Your task to perform on an android device: Go to location settings Image 0: 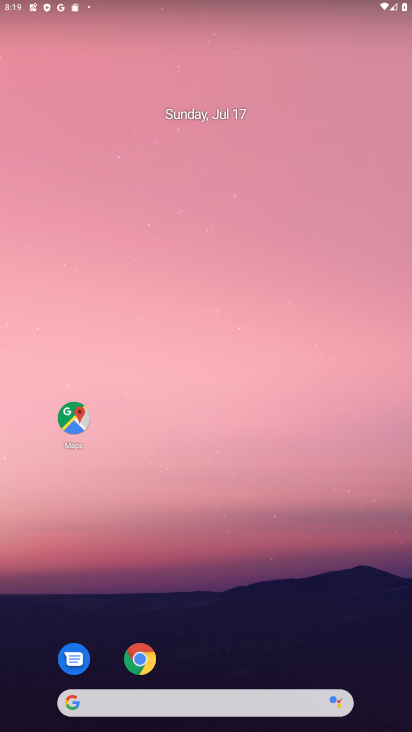
Step 0: drag from (232, 595) to (272, 0)
Your task to perform on an android device: Go to location settings Image 1: 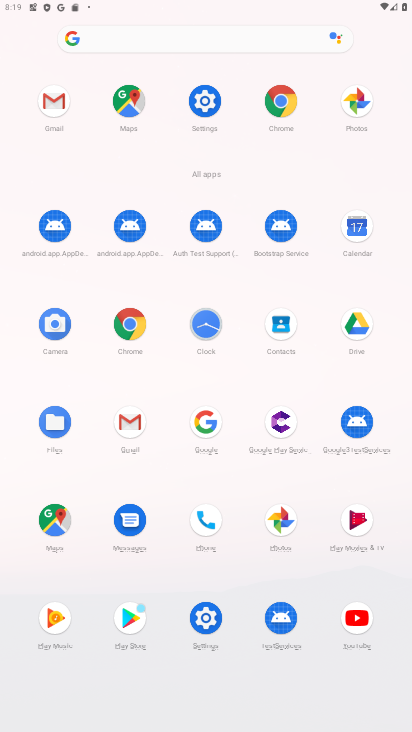
Step 1: click (203, 622)
Your task to perform on an android device: Go to location settings Image 2: 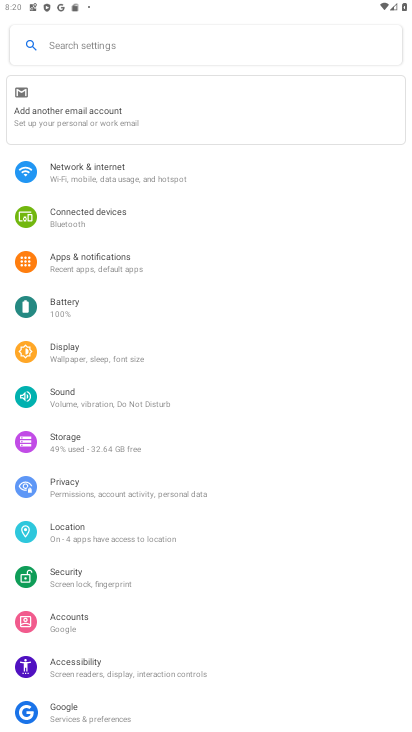
Step 2: click (75, 533)
Your task to perform on an android device: Go to location settings Image 3: 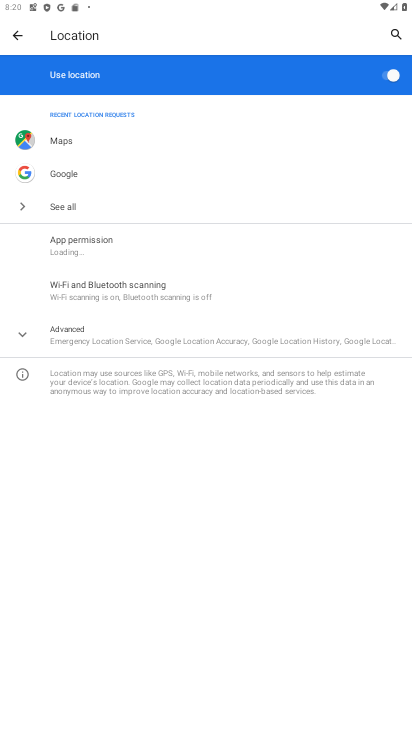
Step 3: click (388, 77)
Your task to perform on an android device: Go to location settings Image 4: 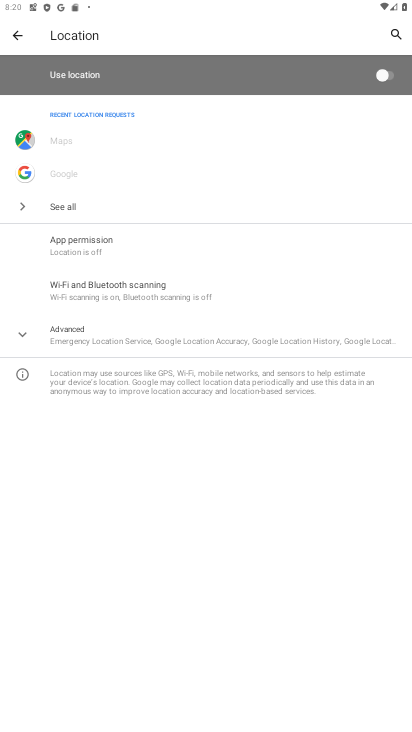
Step 4: click (381, 71)
Your task to perform on an android device: Go to location settings Image 5: 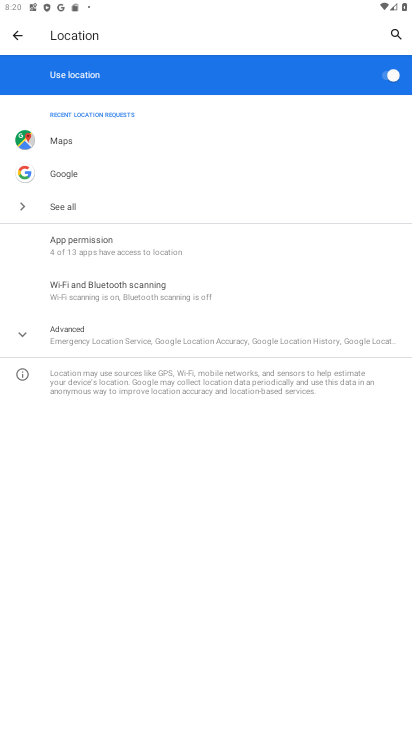
Step 5: task complete